Your task to perform on an android device: Go to Reddit.com Image 0: 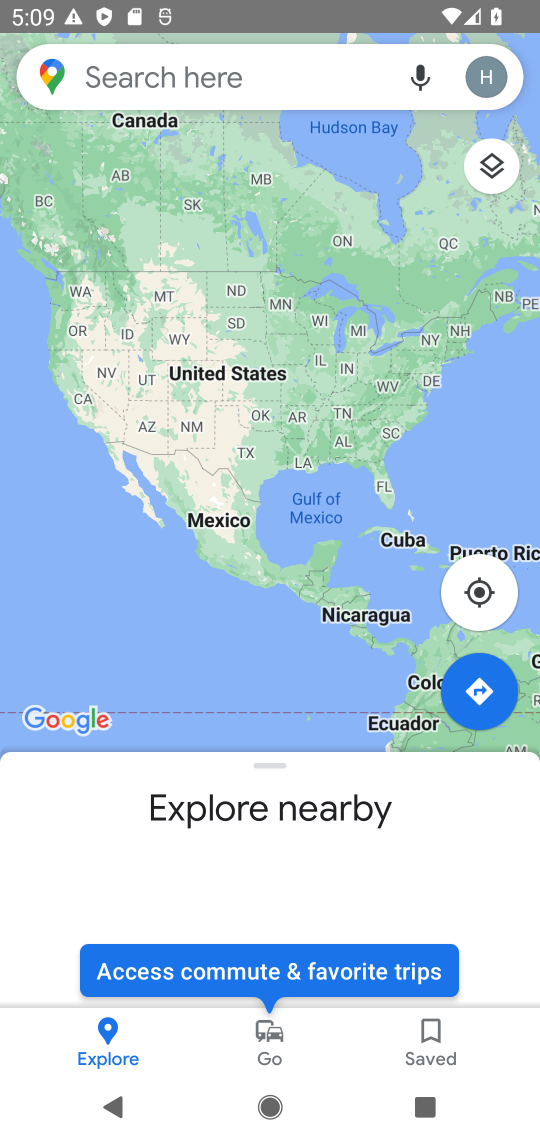
Step 0: press home button
Your task to perform on an android device: Go to Reddit.com Image 1: 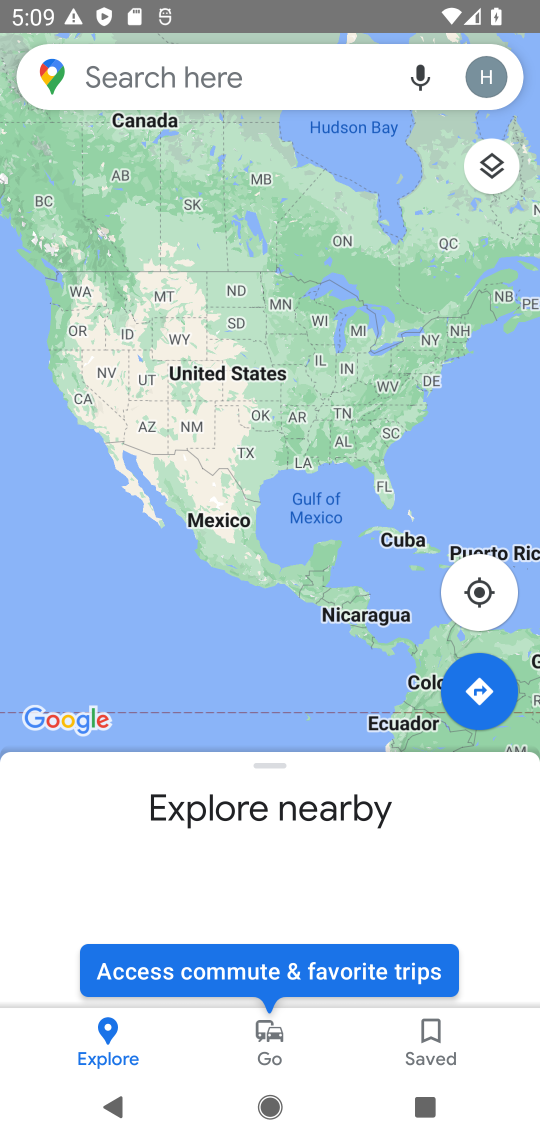
Step 1: press home button
Your task to perform on an android device: Go to Reddit.com Image 2: 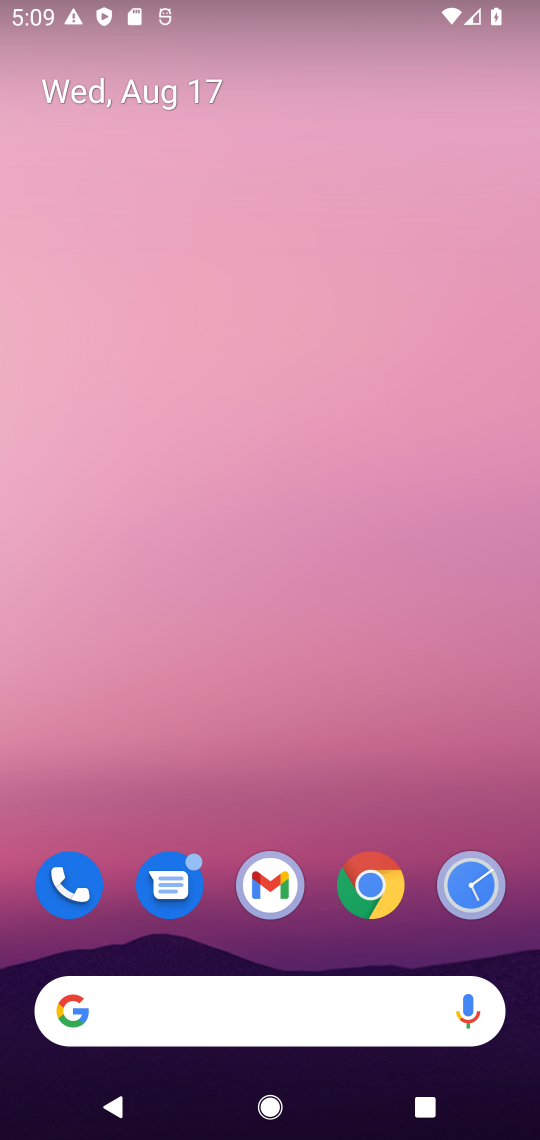
Step 2: drag from (341, 294) to (370, 72)
Your task to perform on an android device: Go to Reddit.com Image 3: 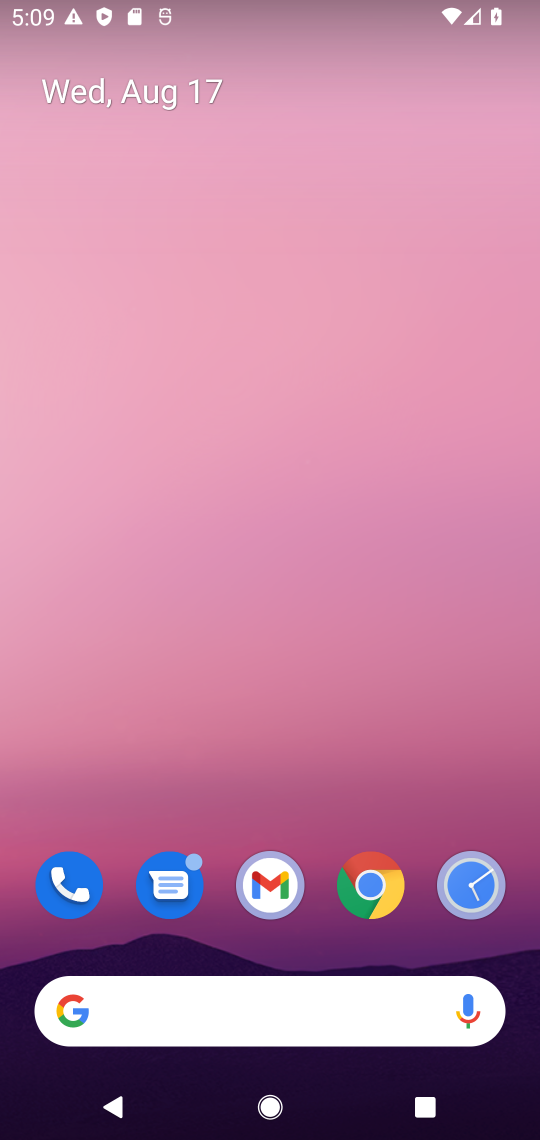
Step 3: drag from (333, 739) to (377, 129)
Your task to perform on an android device: Go to Reddit.com Image 4: 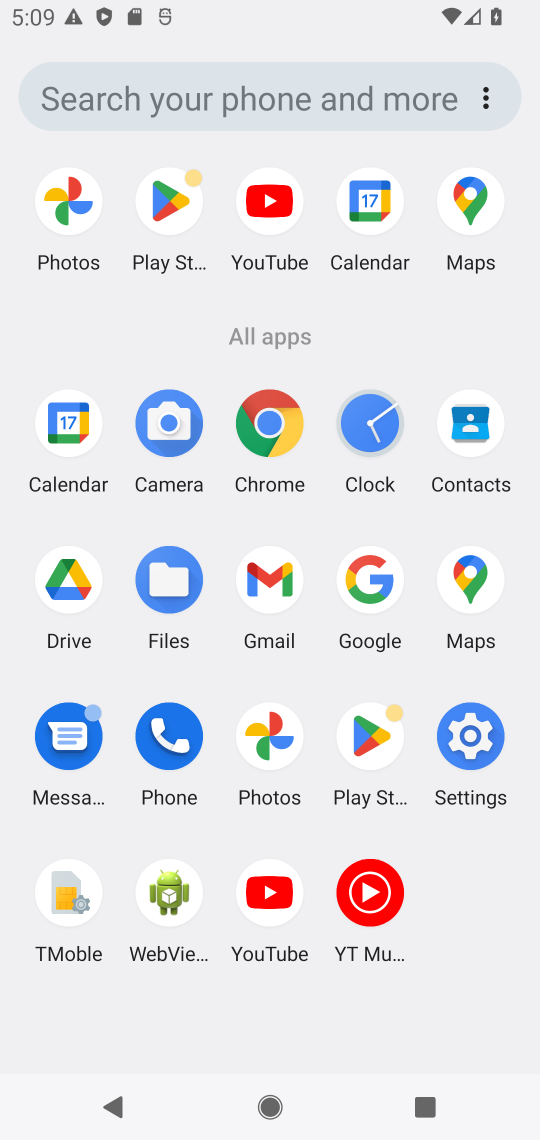
Step 4: click (273, 429)
Your task to perform on an android device: Go to Reddit.com Image 5: 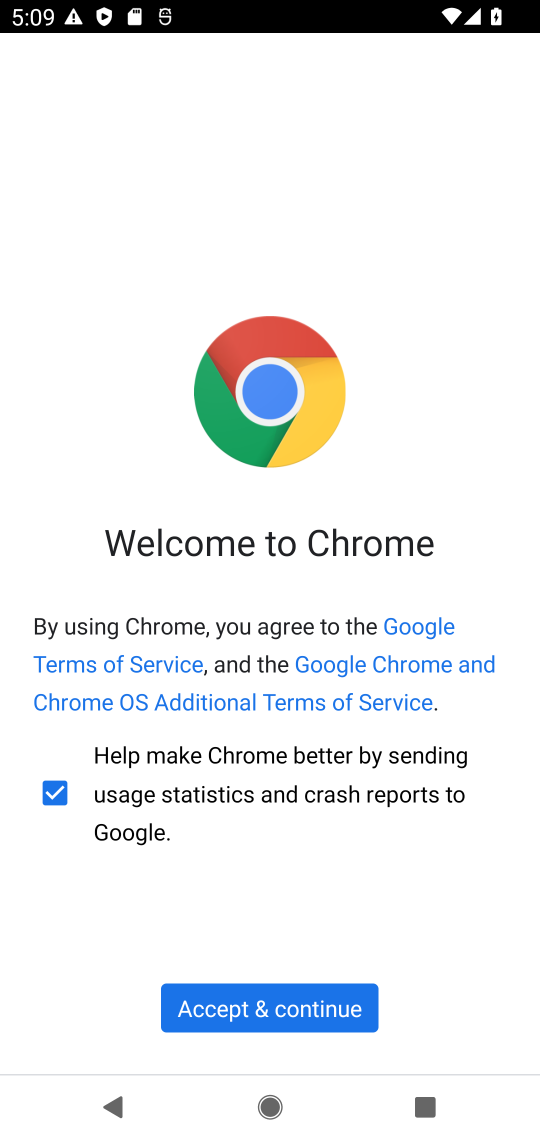
Step 5: click (290, 1018)
Your task to perform on an android device: Go to Reddit.com Image 6: 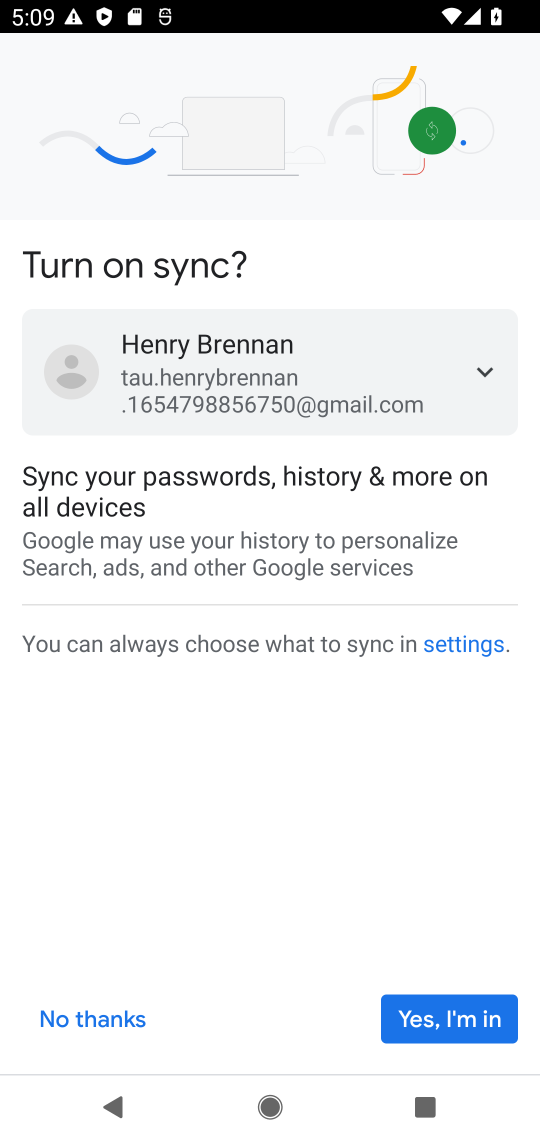
Step 6: click (444, 1003)
Your task to perform on an android device: Go to Reddit.com Image 7: 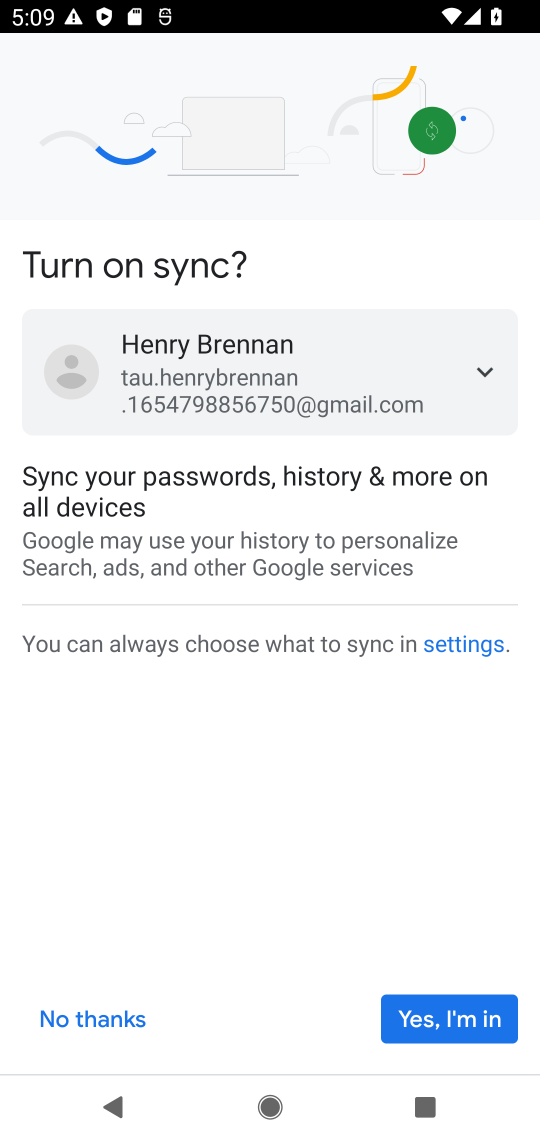
Step 7: click (465, 1025)
Your task to perform on an android device: Go to Reddit.com Image 8: 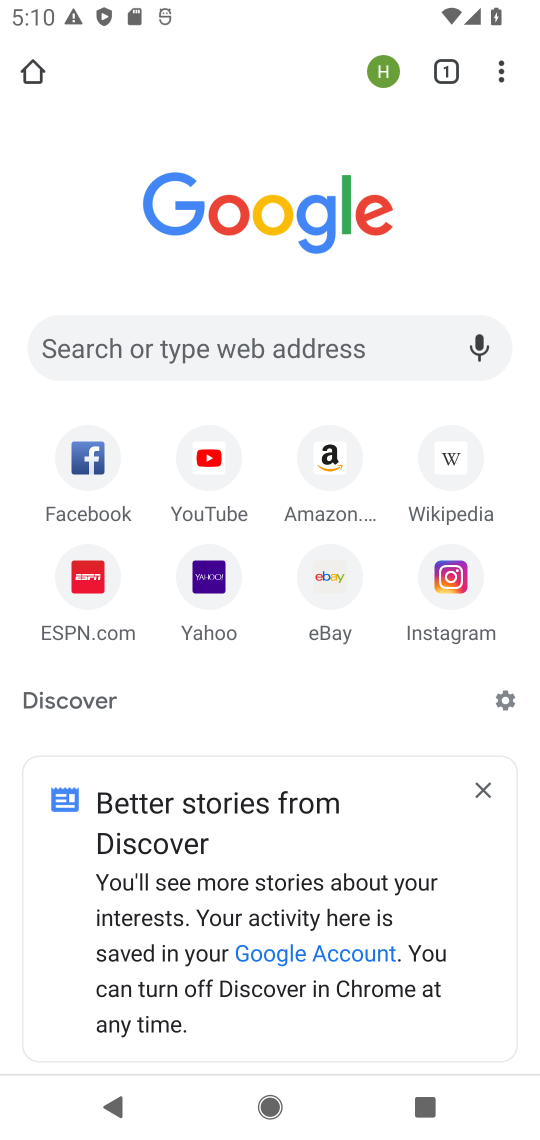
Step 8: click (257, 366)
Your task to perform on an android device: Go to Reddit.com Image 9: 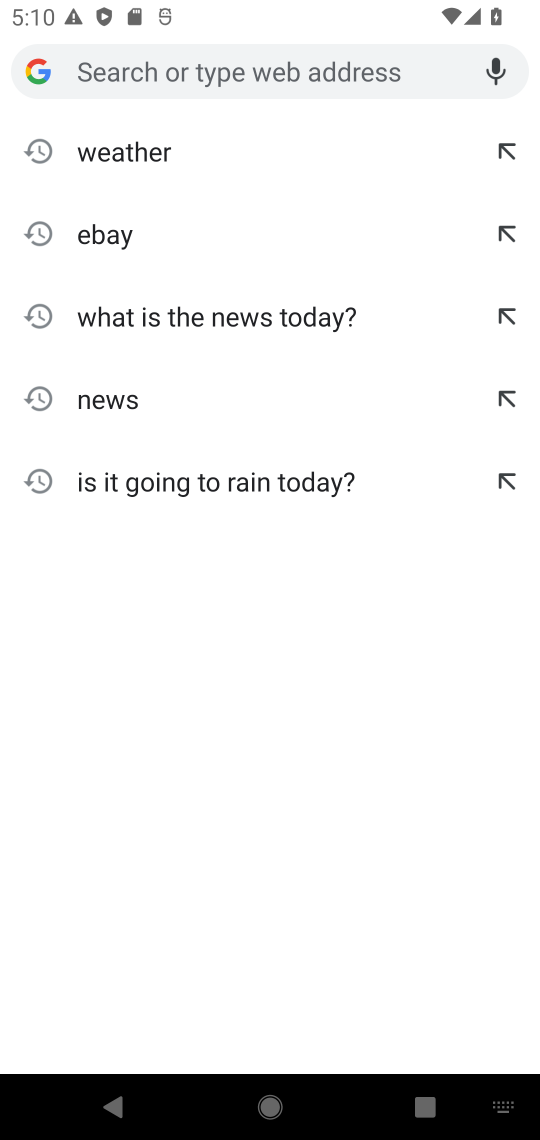
Step 9: type "reddit.com"
Your task to perform on an android device: Go to Reddit.com Image 10: 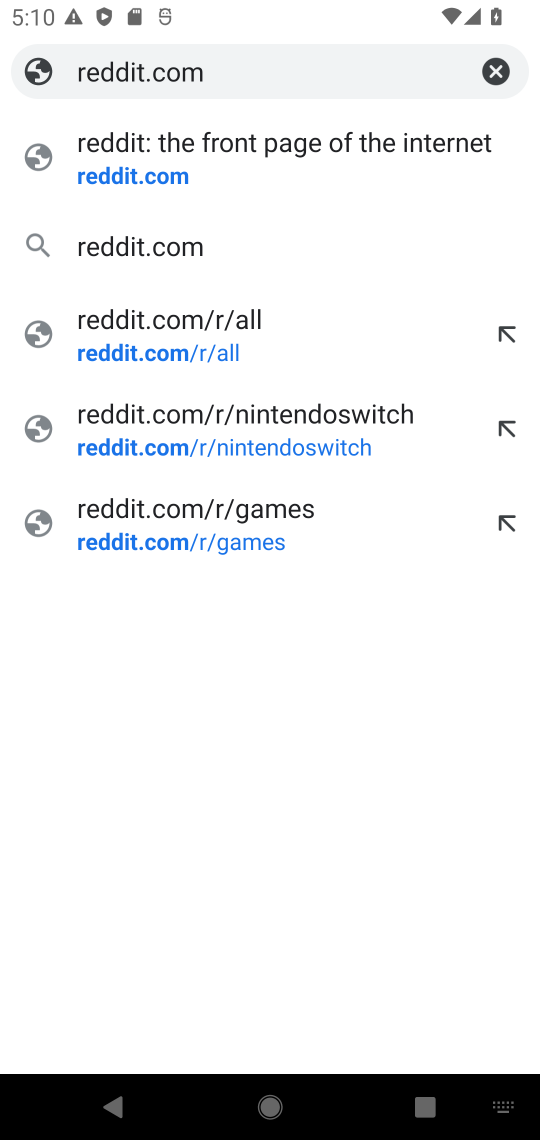
Step 10: click (139, 176)
Your task to perform on an android device: Go to Reddit.com Image 11: 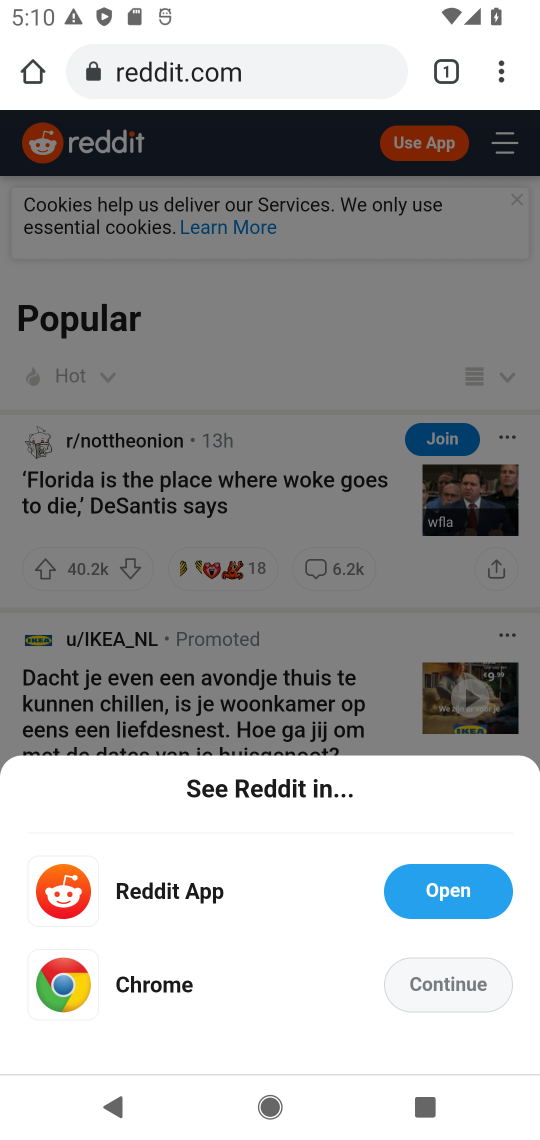
Step 11: task complete